Your task to perform on an android device: delete the emails in spam in the gmail app Image 0: 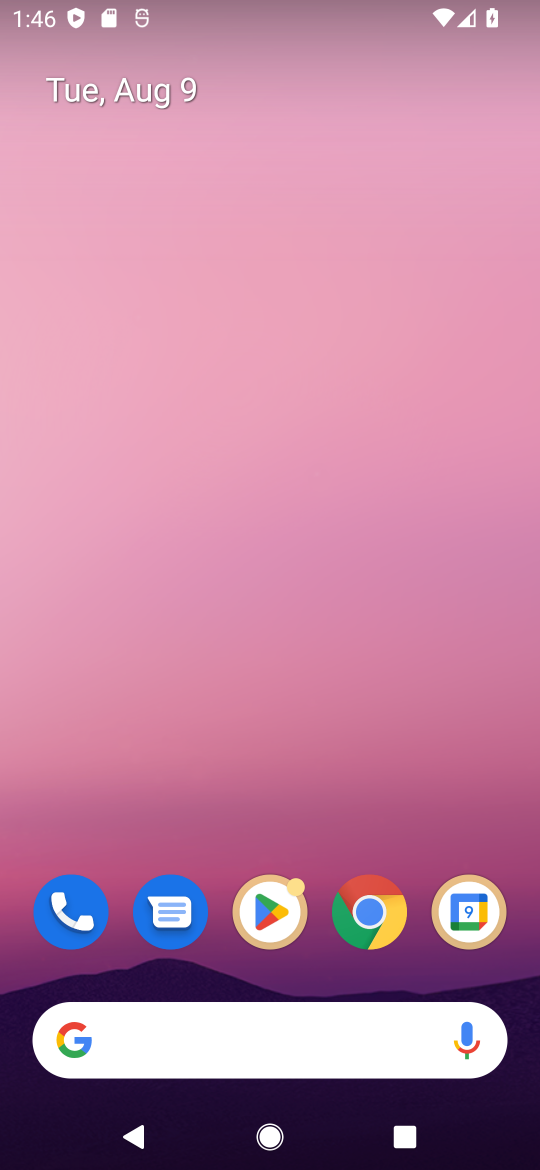
Step 0: drag from (296, 809) to (300, 58)
Your task to perform on an android device: delete the emails in spam in the gmail app Image 1: 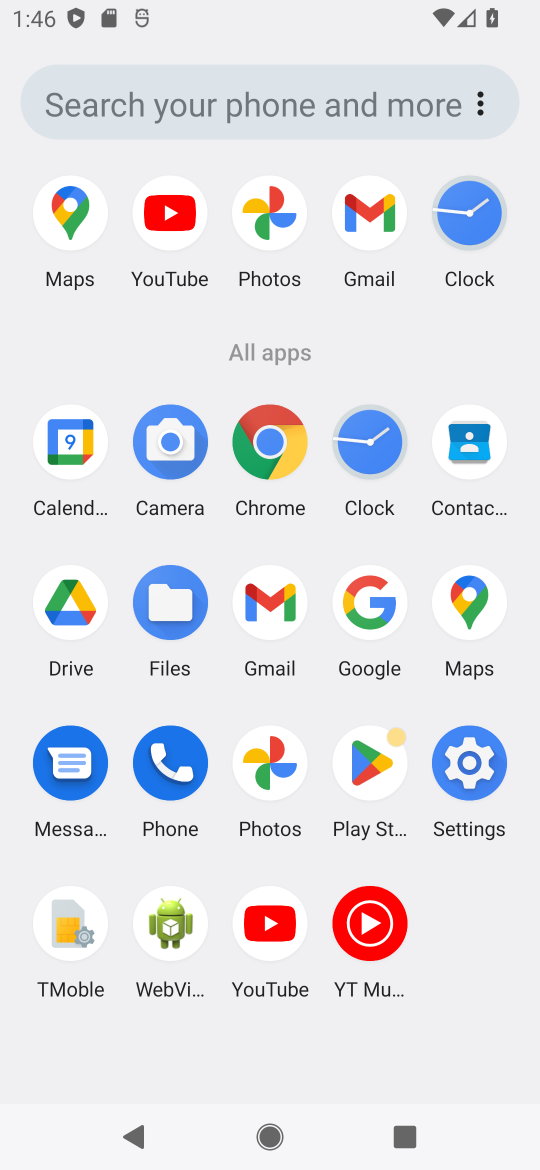
Step 1: click (467, 216)
Your task to perform on an android device: delete the emails in spam in the gmail app Image 2: 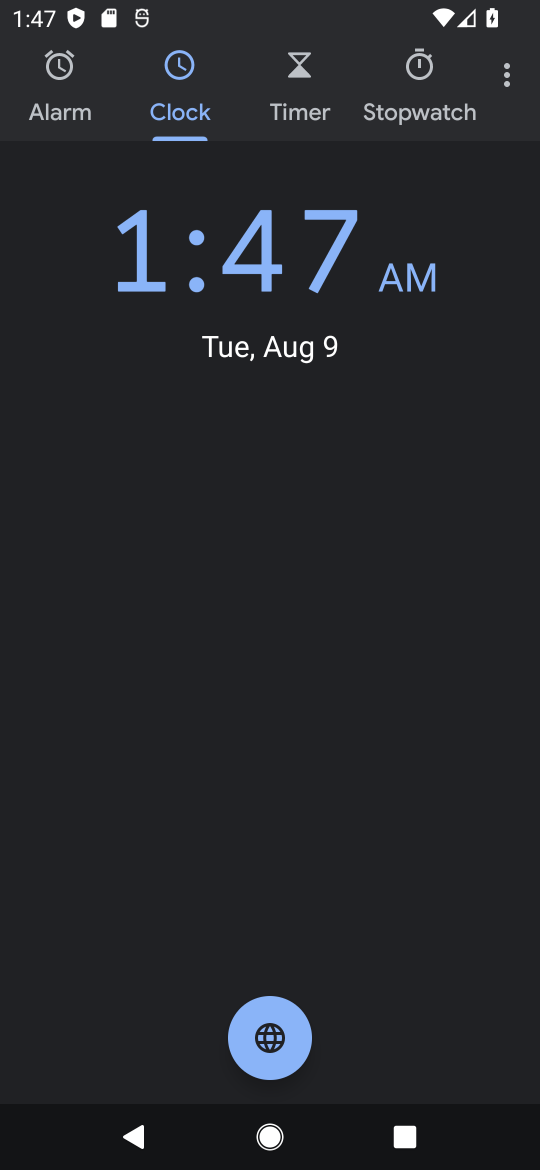
Step 2: press home button
Your task to perform on an android device: delete the emails in spam in the gmail app Image 3: 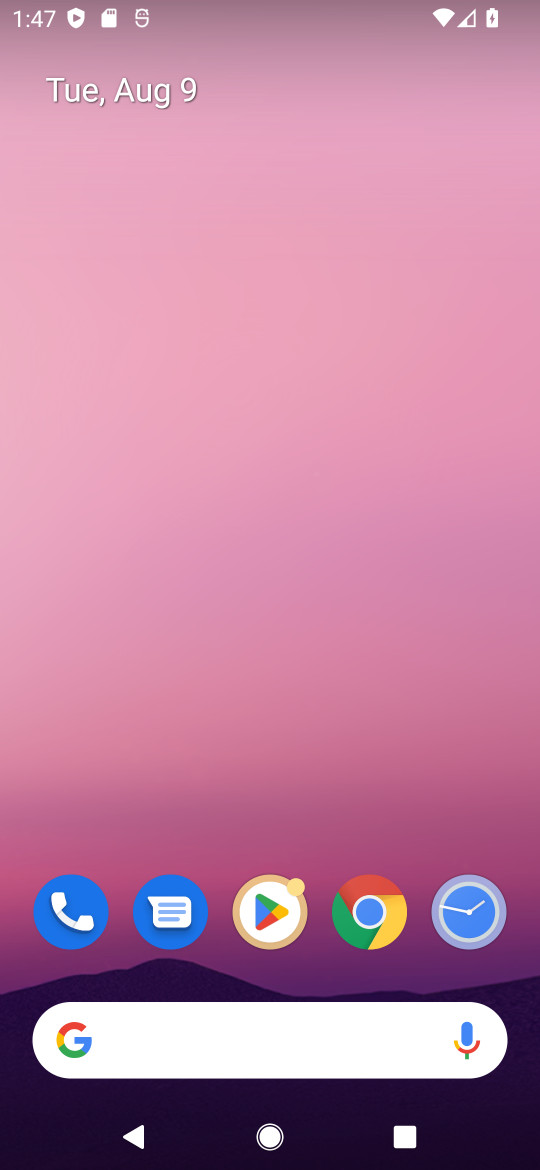
Step 3: drag from (358, 763) to (306, 45)
Your task to perform on an android device: delete the emails in spam in the gmail app Image 4: 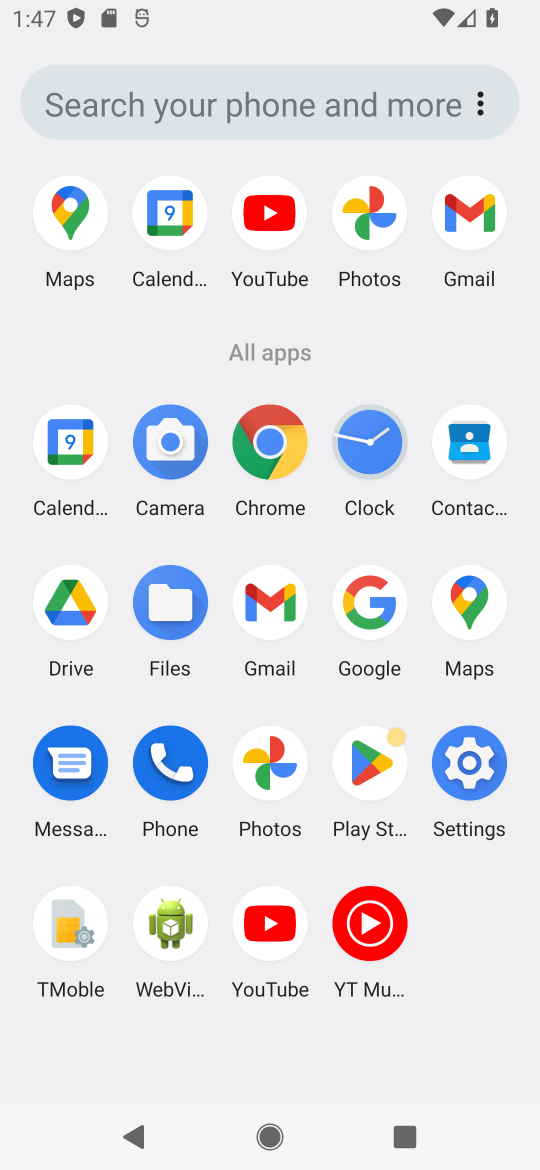
Step 4: click (476, 205)
Your task to perform on an android device: delete the emails in spam in the gmail app Image 5: 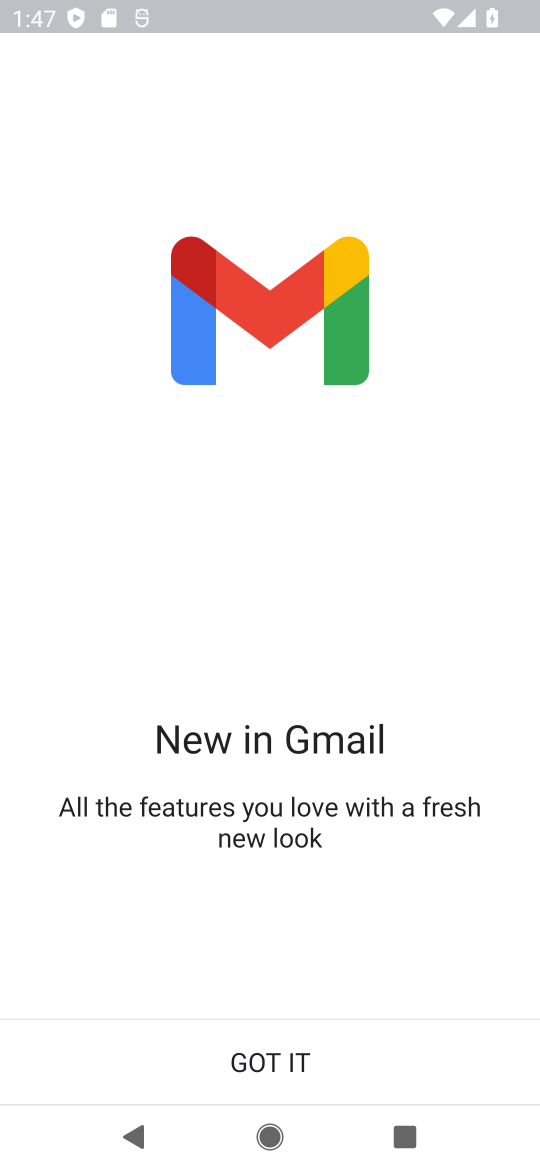
Step 5: click (278, 1061)
Your task to perform on an android device: delete the emails in spam in the gmail app Image 6: 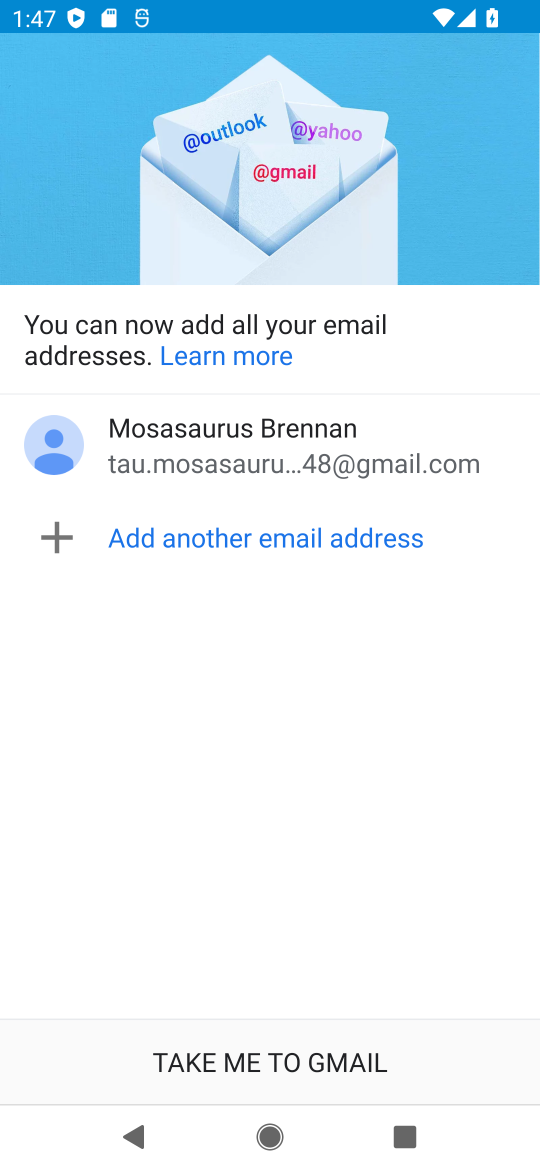
Step 6: click (273, 1063)
Your task to perform on an android device: delete the emails in spam in the gmail app Image 7: 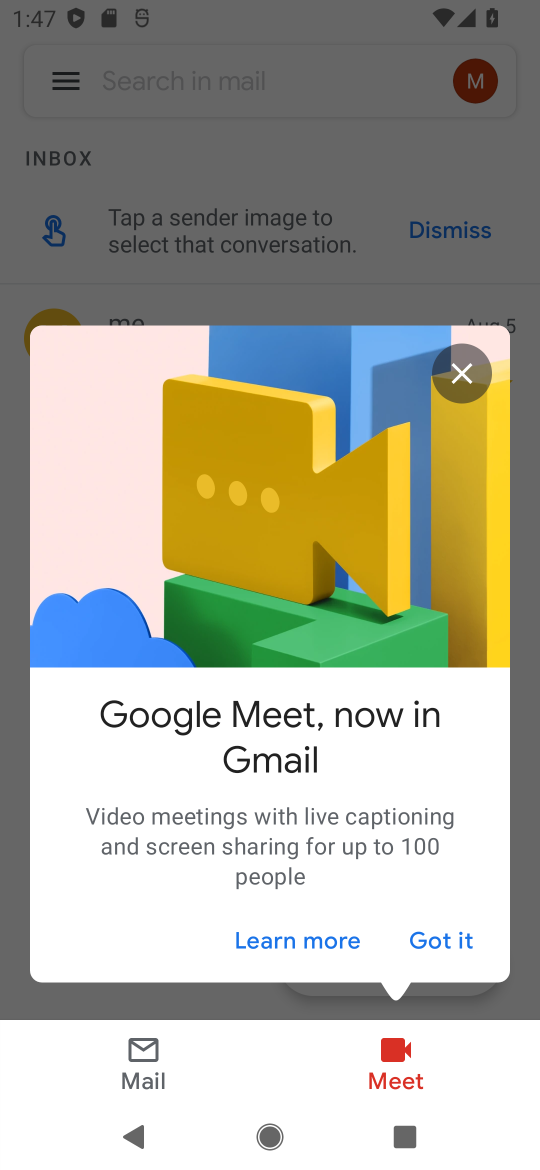
Step 7: click (425, 932)
Your task to perform on an android device: delete the emails in spam in the gmail app Image 8: 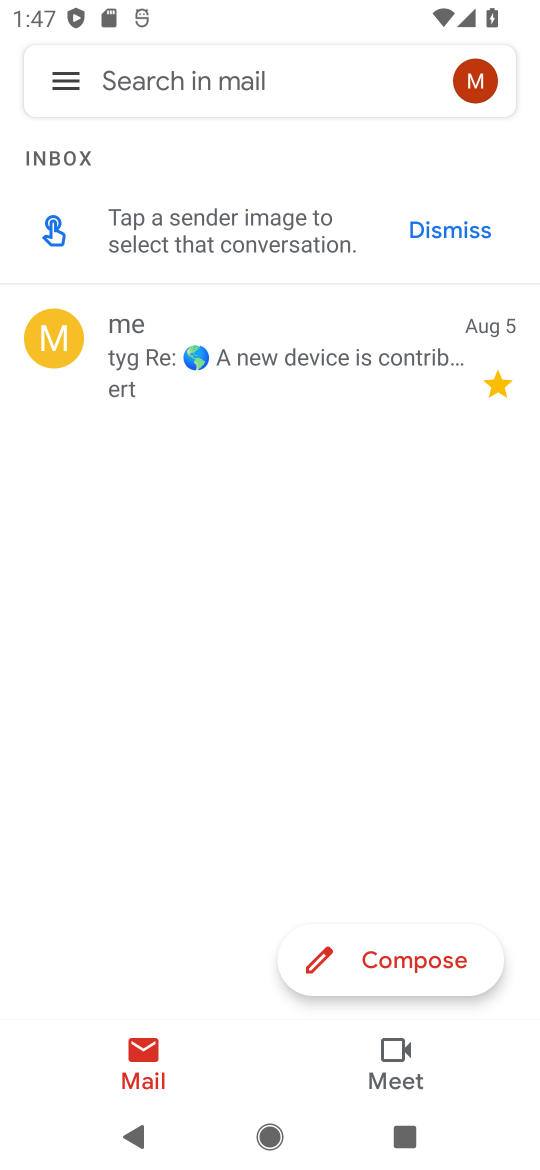
Step 8: click (227, 340)
Your task to perform on an android device: delete the emails in spam in the gmail app Image 9: 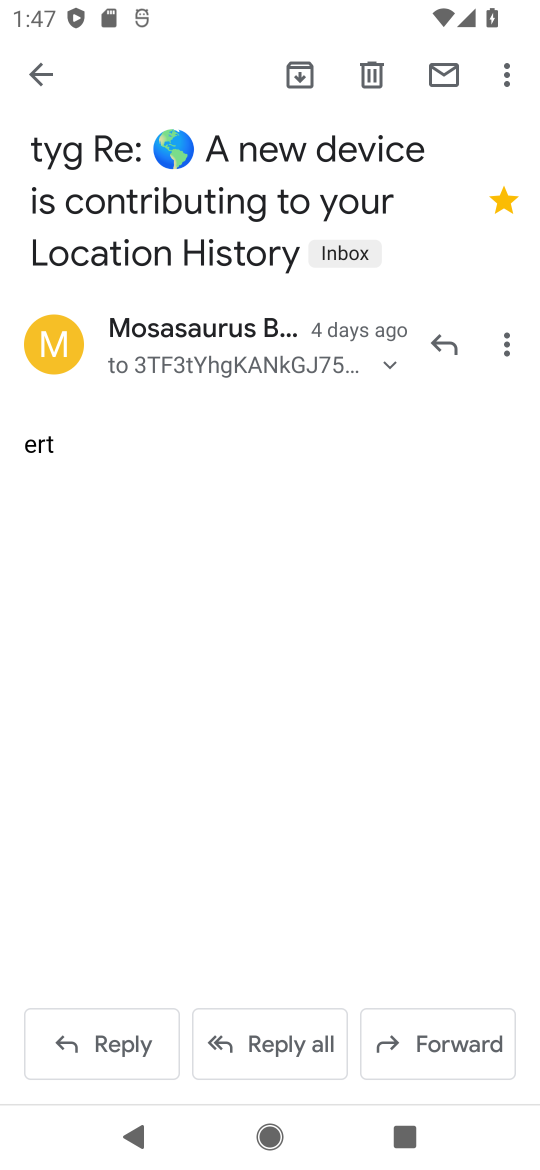
Step 9: click (375, 74)
Your task to perform on an android device: delete the emails in spam in the gmail app Image 10: 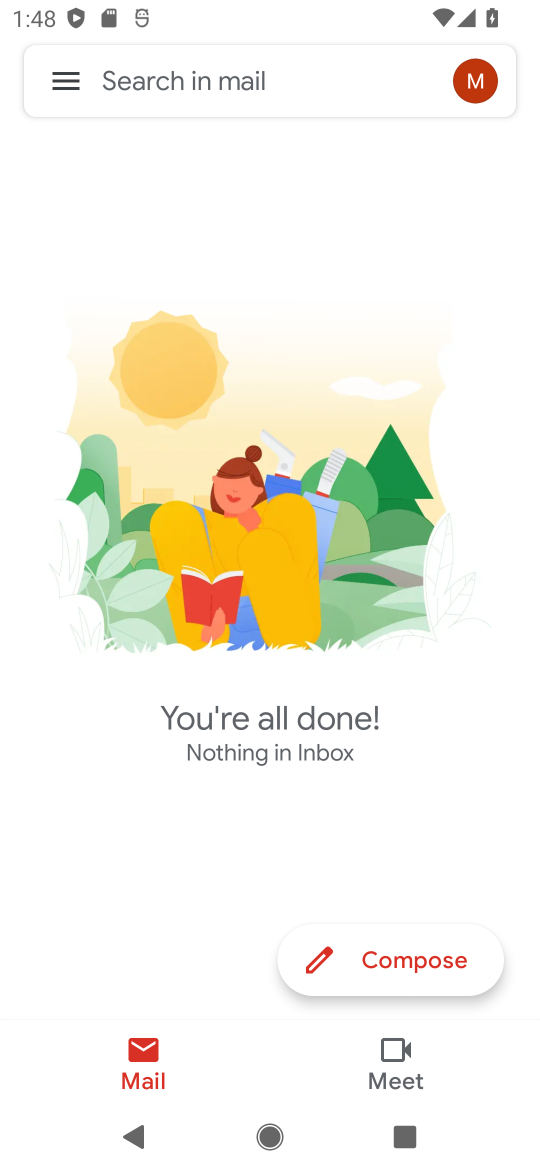
Step 10: task complete